Your task to perform on an android device: Open Android settings Image 0: 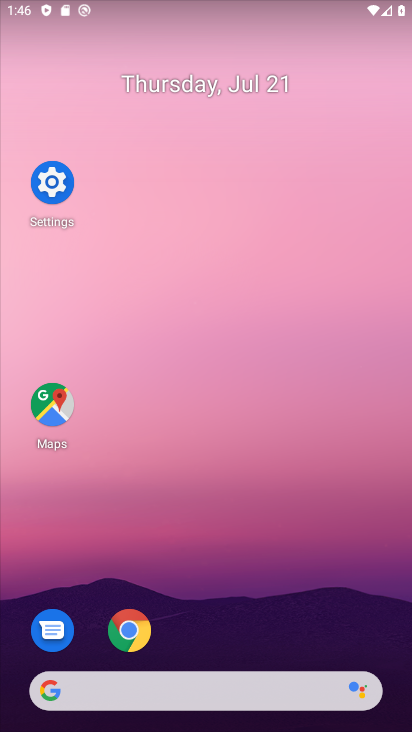
Step 0: click (63, 184)
Your task to perform on an android device: Open Android settings Image 1: 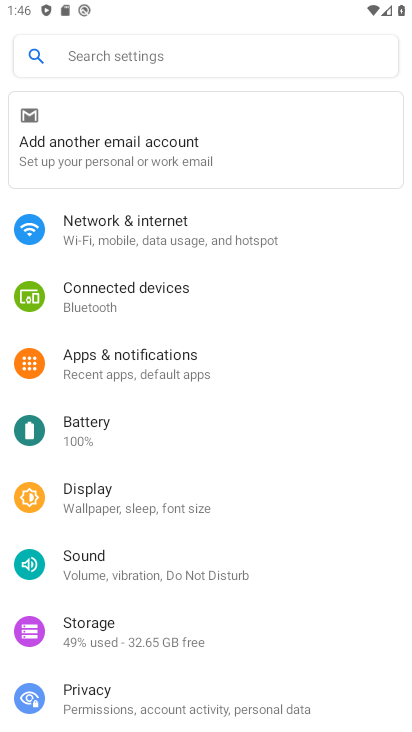
Step 1: task complete